Your task to perform on an android device: open wifi settings Image 0: 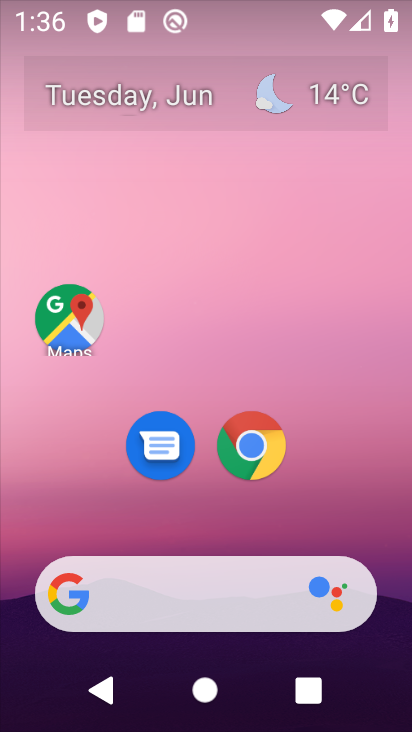
Step 0: press home button
Your task to perform on an android device: open wifi settings Image 1: 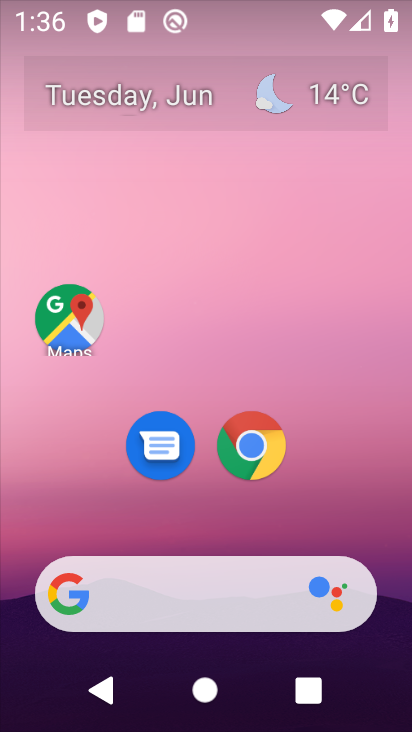
Step 1: drag from (323, 497) to (327, 134)
Your task to perform on an android device: open wifi settings Image 2: 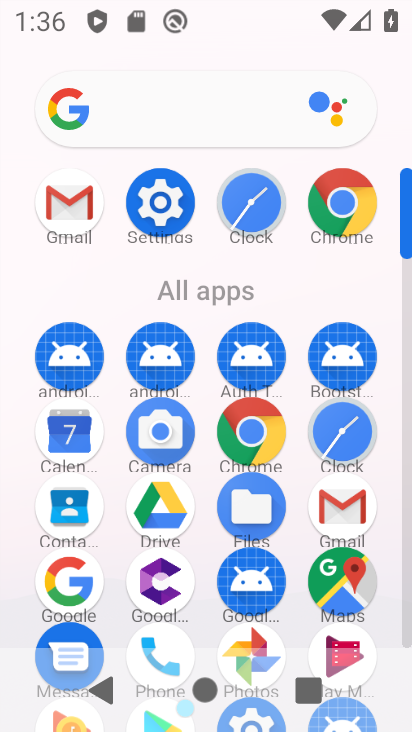
Step 2: click (160, 220)
Your task to perform on an android device: open wifi settings Image 3: 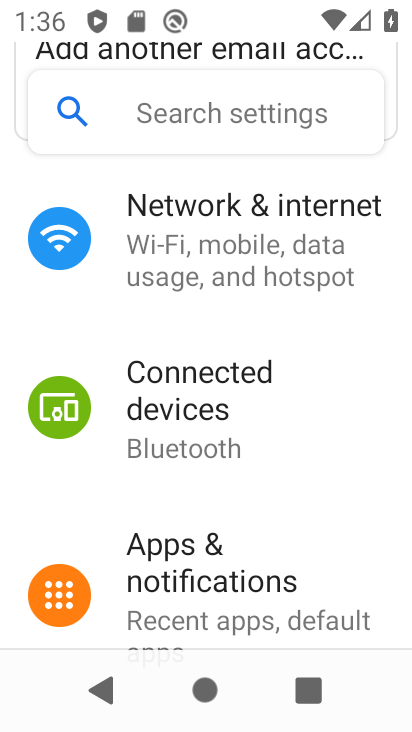
Step 3: drag from (346, 327) to (325, 564)
Your task to perform on an android device: open wifi settings Image 4: 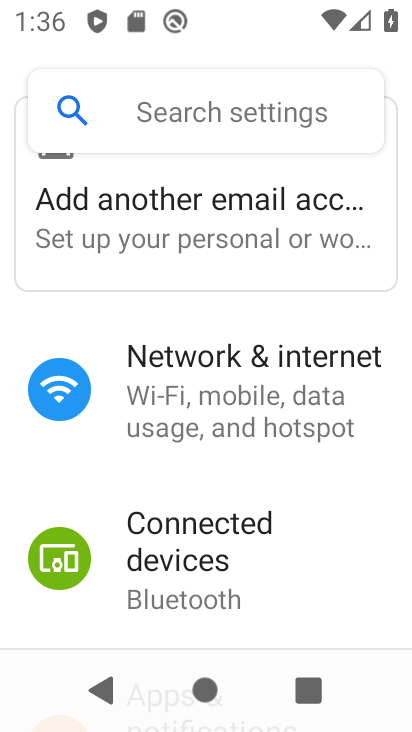
Step 4: drag from (295, 583) to (306, 255)
Your task to perform on an android device: open wifi settings Image 5: 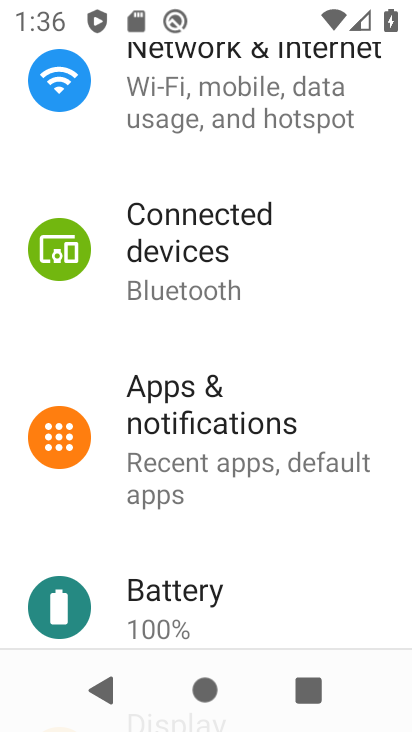
Step 5: drag from (303, 272) to (293, 549)
Your task to perform on an android device: open wifi settings Image 6: 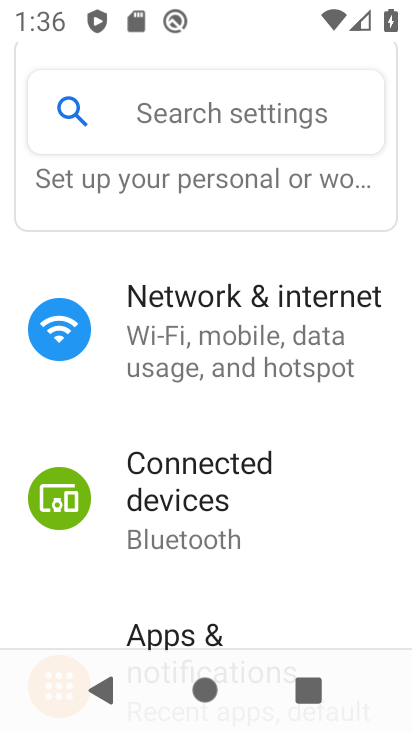
Step 6: drag from (281, 573) to (300, 304)
Your task to perform on an android device: open wifi settings Image 7: 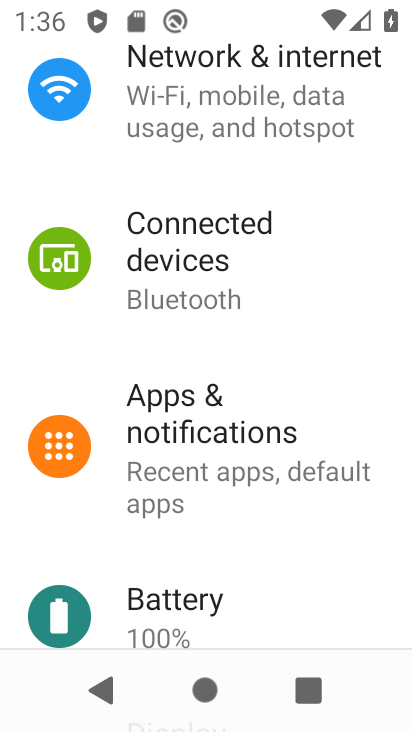
Step 7: drag from (297, 557) to (327, 294)
Your task to perform on an android device: open wifi settings Image 8: 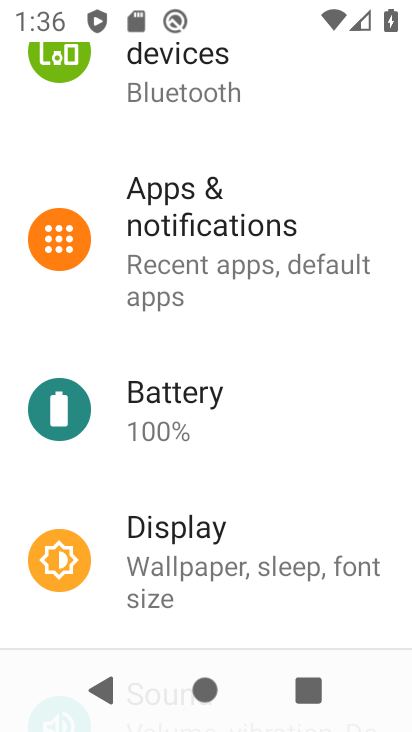
Step 8: drag from (265, 518) to (283, 158)
Your task to perform on an android device: open wifi settings Image 9: 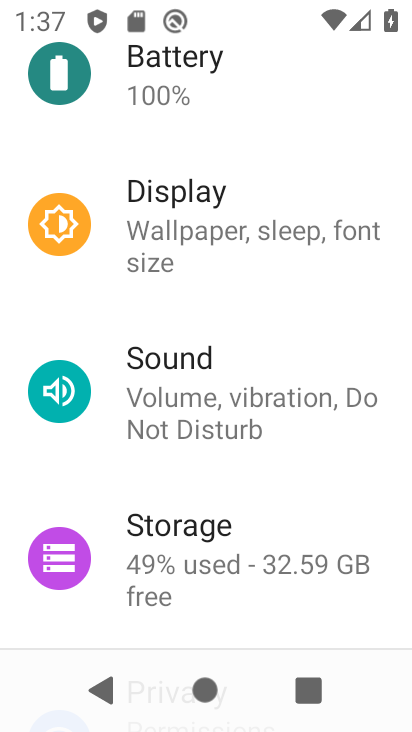
Step 9: drag from (294, 145) to (310, 590)
Your task to perform on an android device: open wifi settings Image 10: 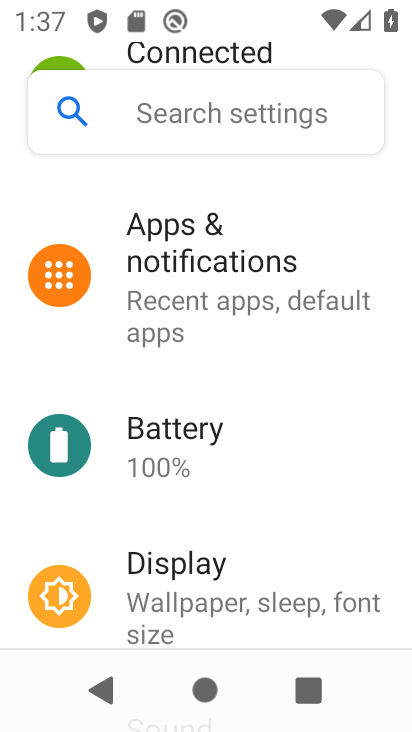
Step 10: drag from (292, 186) to (310, 627)
Your task to perform on an android device: open wifi settings Image 11: 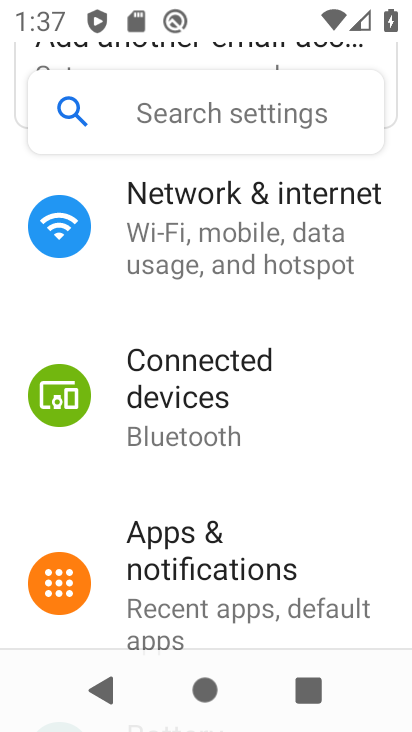
Step 11: click (287, 238)
Your task to perform on an android device: open wifi settings Image 12: 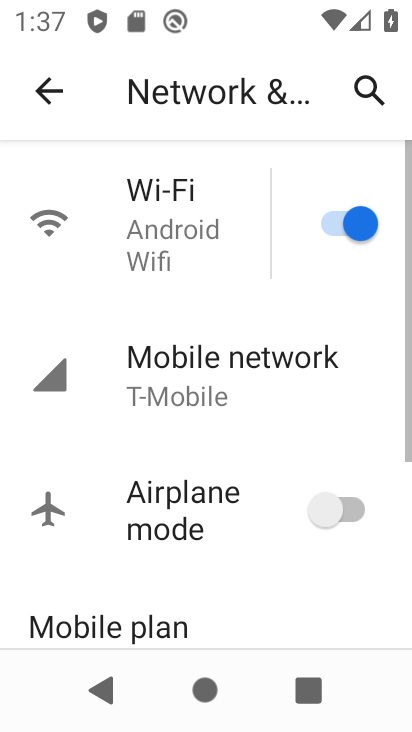
Step 12: click (167, 200)
Your task to perform on an android device: open wifi settings Image 13: 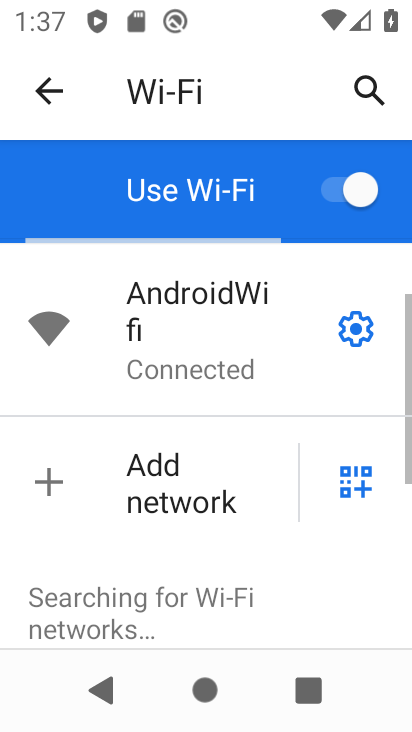
Step 13: click (356, 337)
Your task to perform on an android device: open wifi settings Image 14: 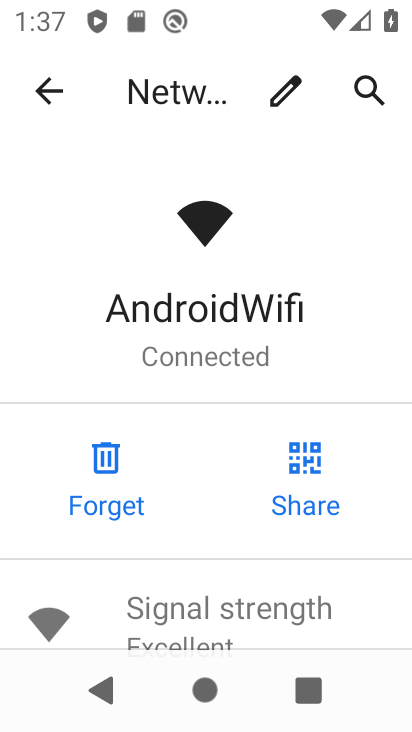
Step 14: task complete